Your task to perform on an android device: Open the web browser Image 0: 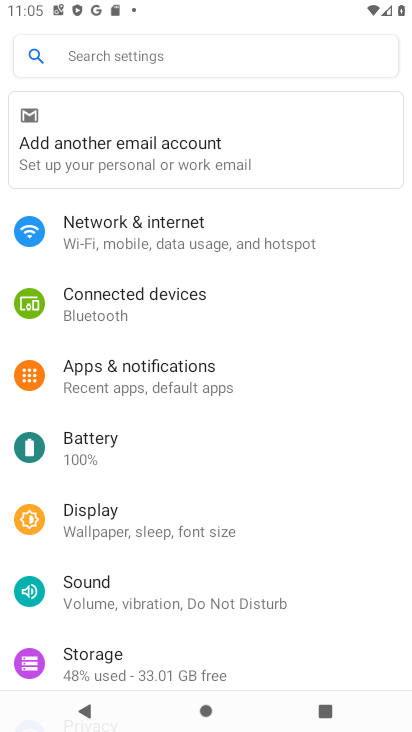
Step 0: press home button
Your task to perform on an android device: Open the web browser Image 1: 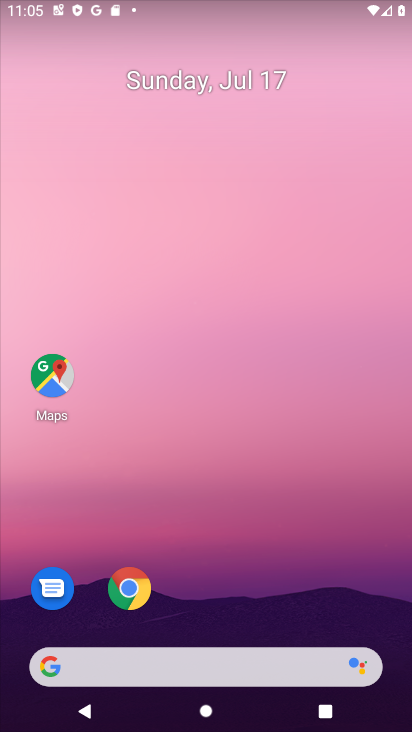
Step 1: drag from (214, 614) to (272, 10)
Your task to perform on an android device: Open the web browser Image 2: 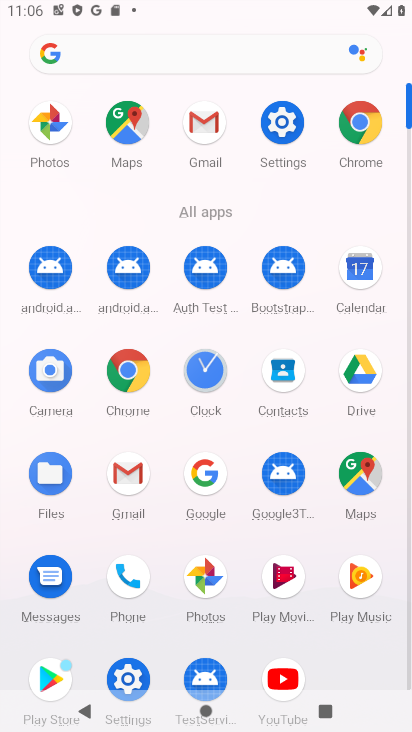
Step 2: click (359, 117)
Your task to perform on an android device: Open the web browser Image 3: 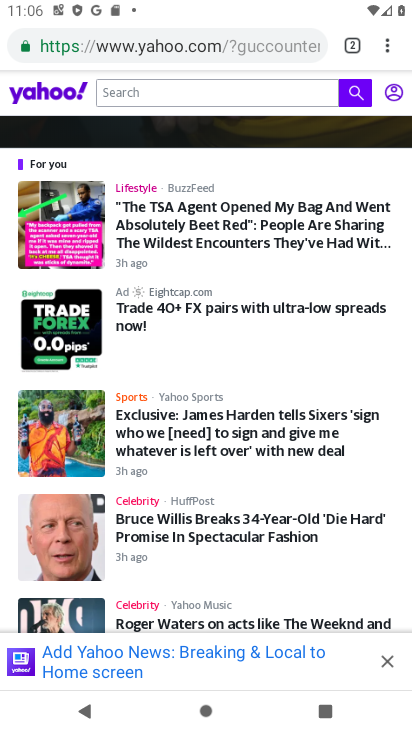
Step 3: task complete